Your task to perform on an android device: Search for pizza restaurants on Maps Image 0: 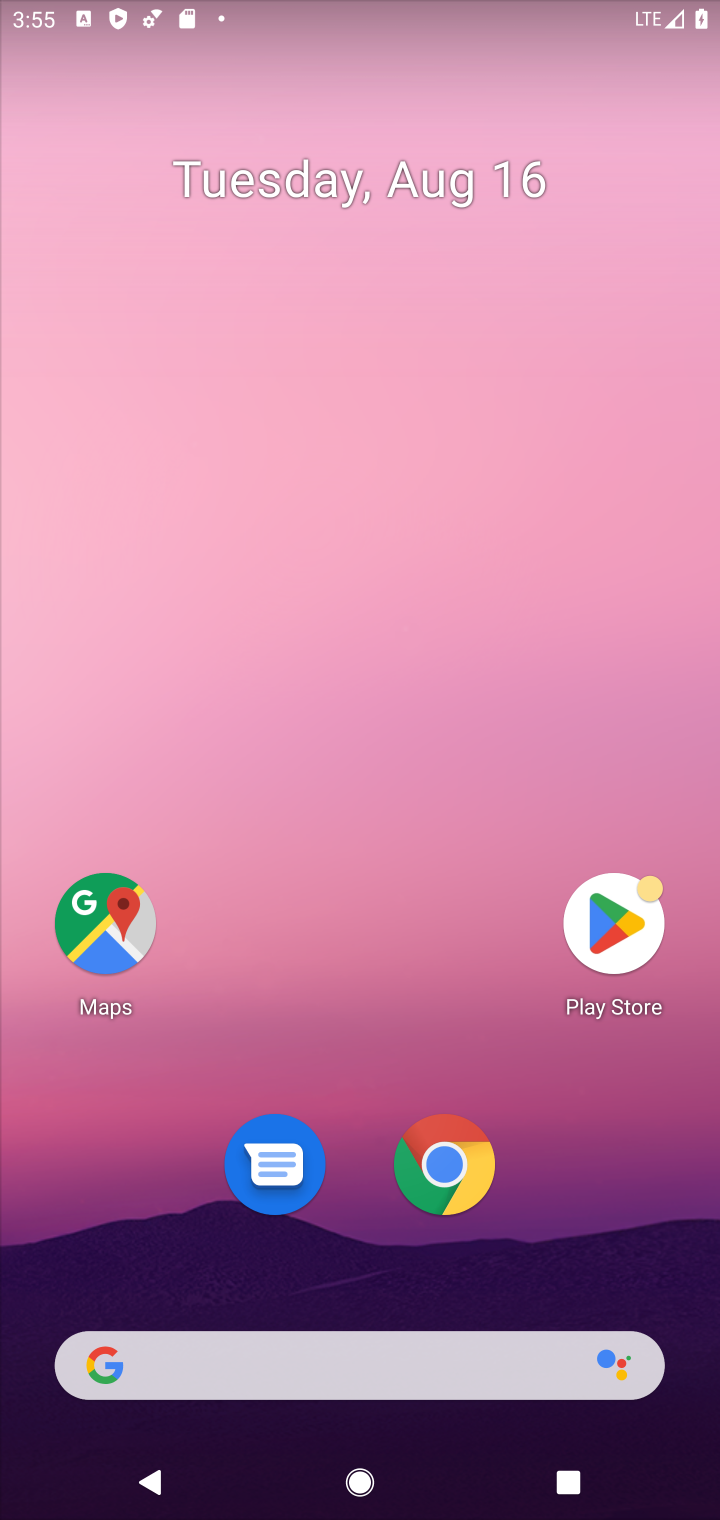
Step 0: click (105, 924)
Your task to perform on an android device: Search for pizza restaurants on Maps Image 1: 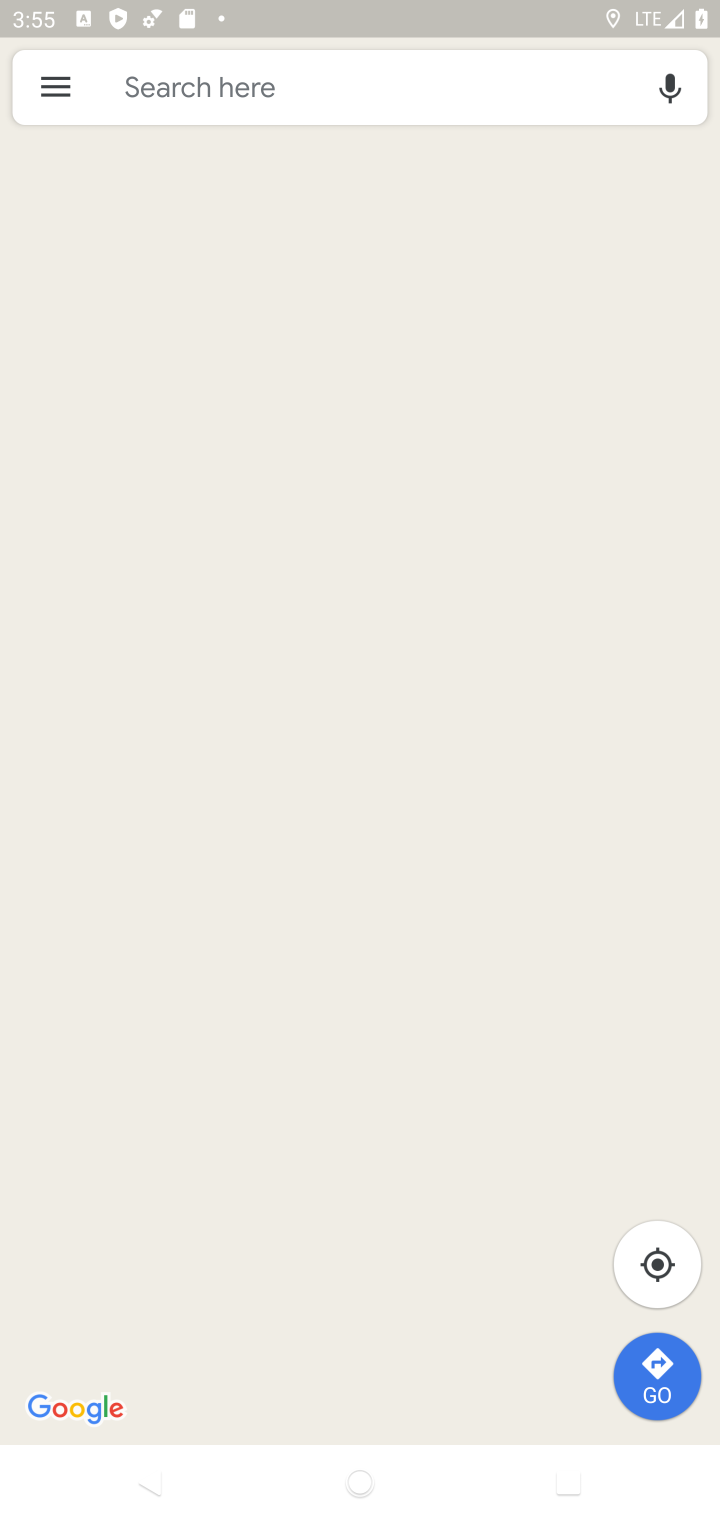
Step 1: click (290, 66)
Your task to perform on an android device: Search for pizza restaurants on Maps Image 2: 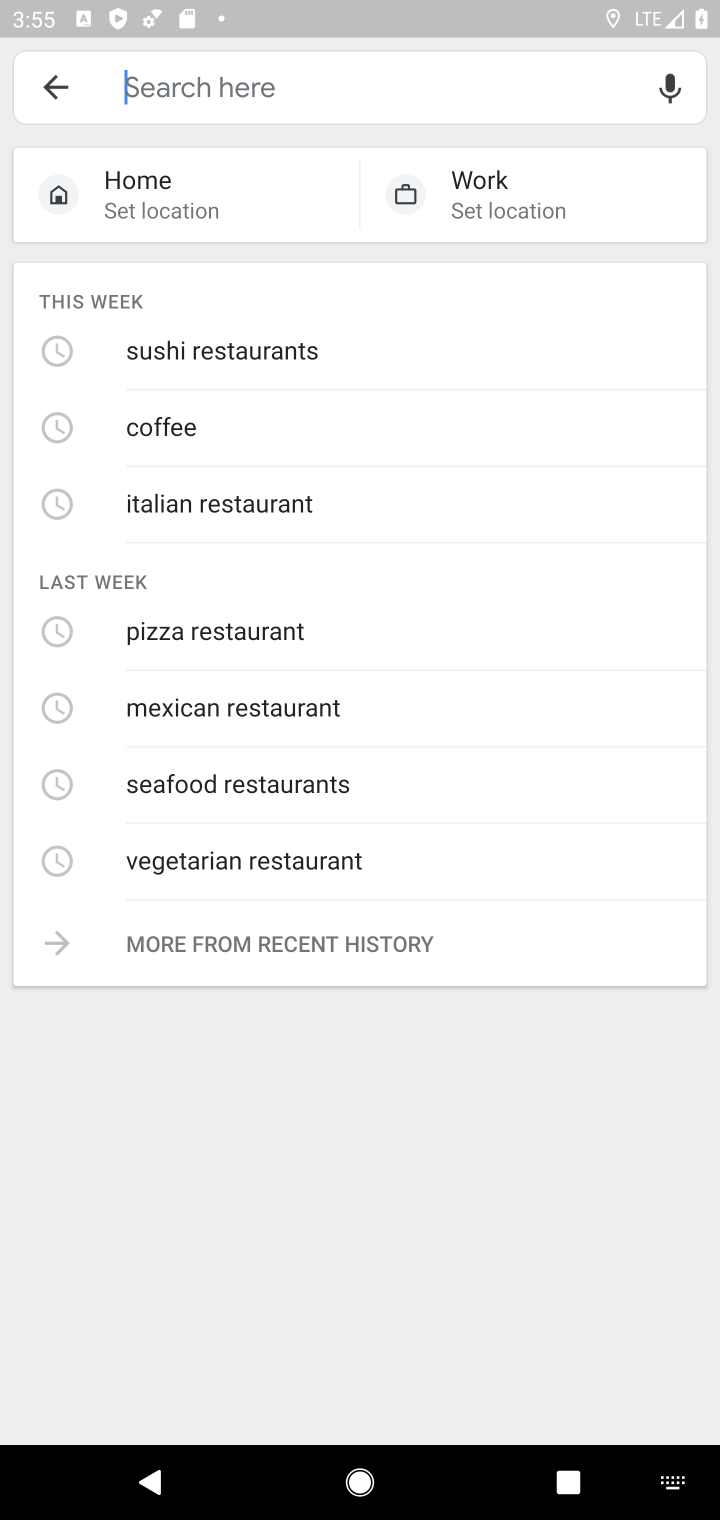
Step 2: type "pizza restaurants"
Your task to perform on an android device: Search for pizza restaurants on Maps Image 3: 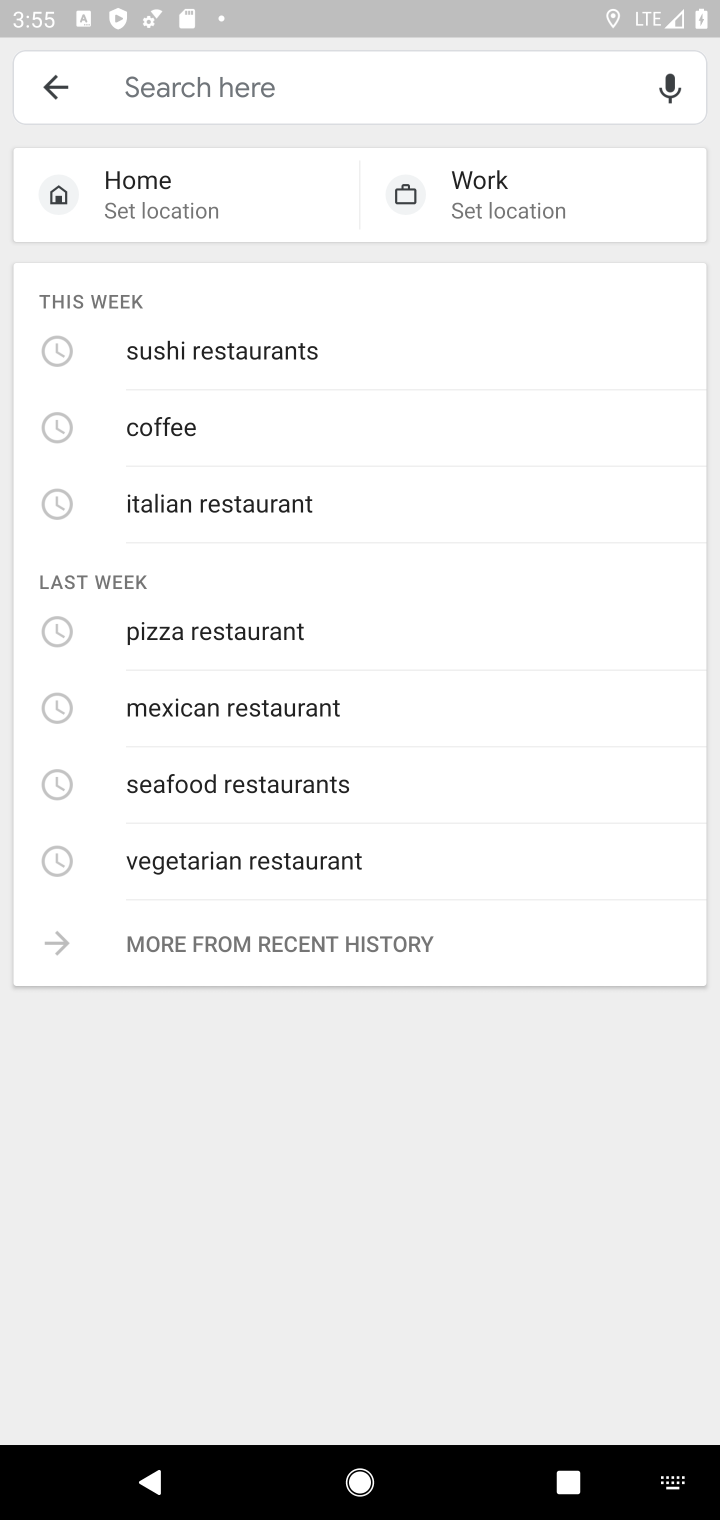
Step 3: click (206, 620)
Your task to perform on an android device: Search for pizza restaurants on Maps Image 4: 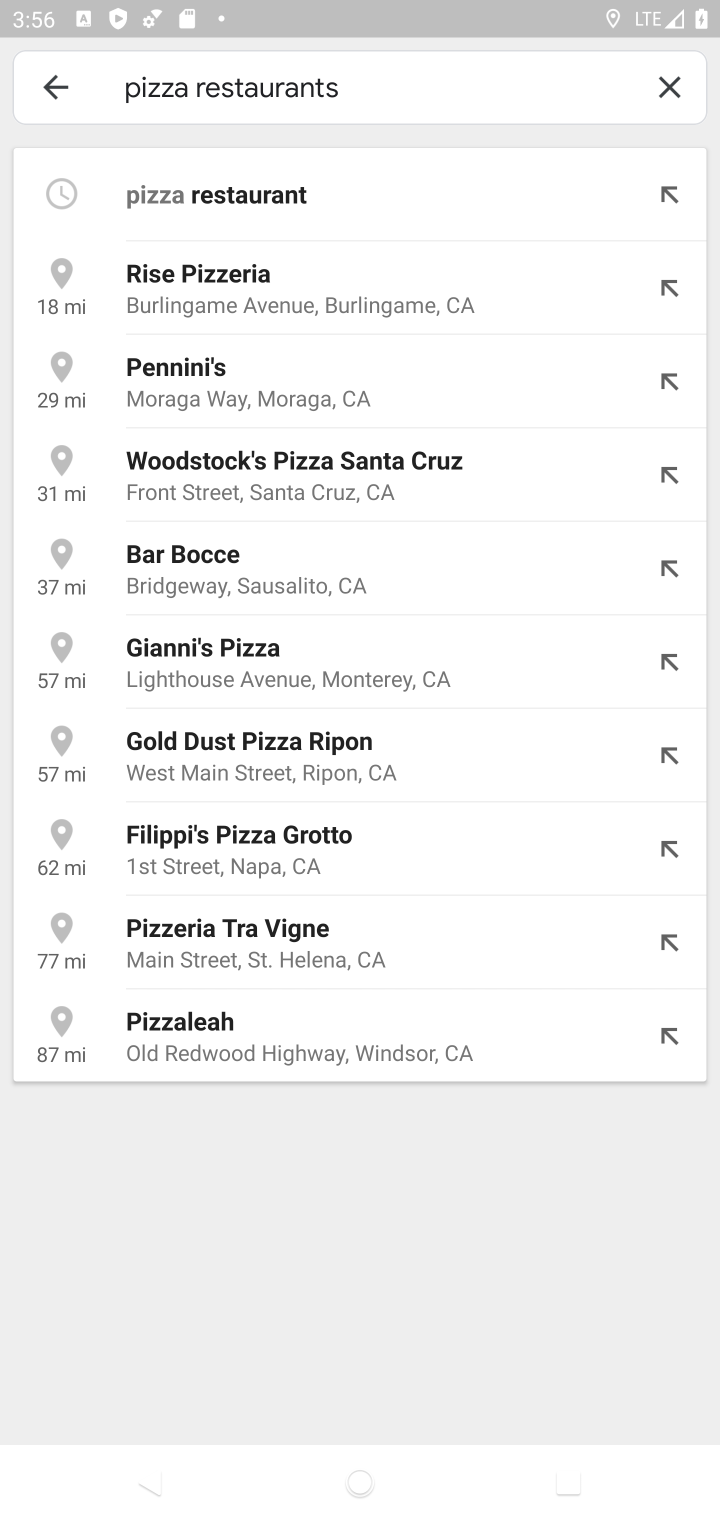
Step 4: click (279, 187)
Your task to perform on an android device: Search for pizza restaurants on Maps Image 5: 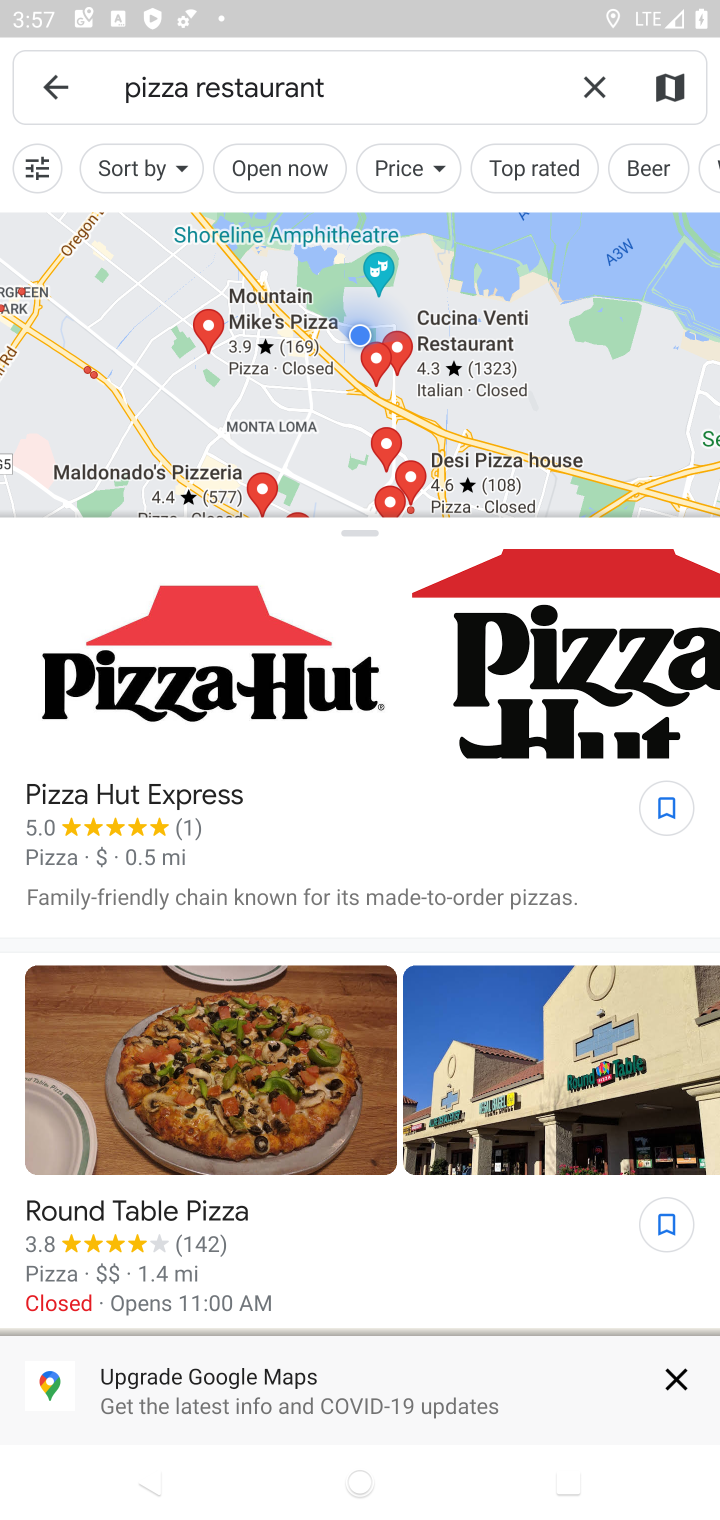
Step 5: task complete